Your task to perform on an android device: delete a single message in the gmail app Image 0: 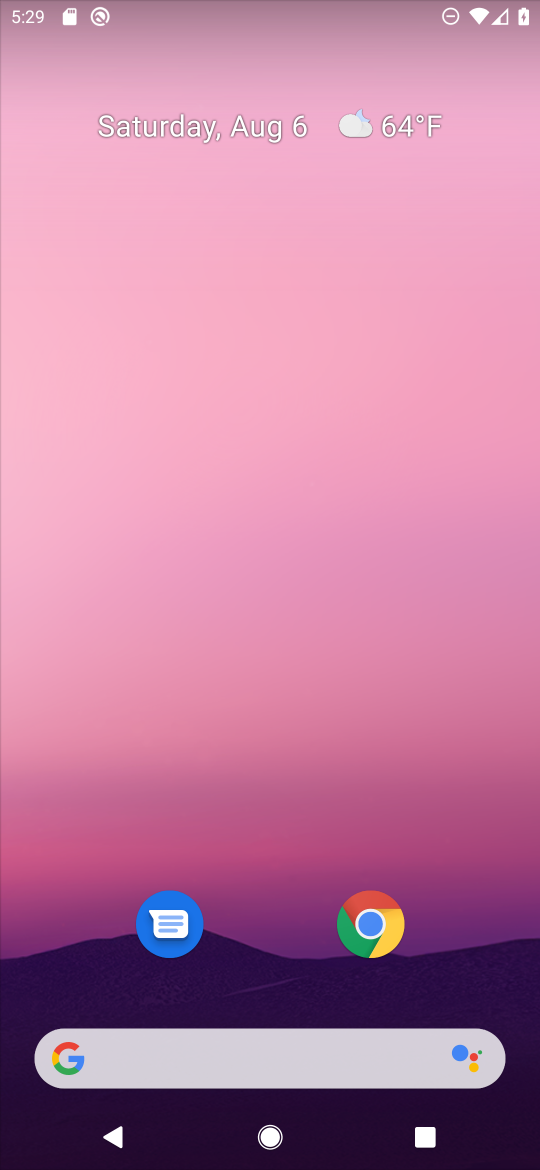
Step 0: press home button
Your task to perform on an android device: delete a single message in the gmail app Image 1: 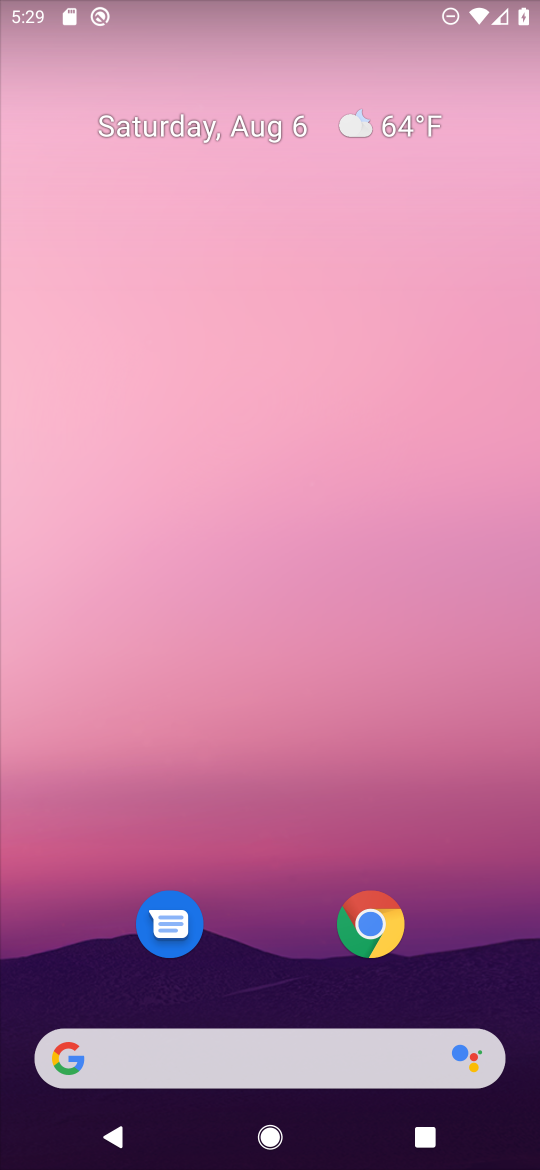
Step 1: drag from (268, 839) to (237, 154)
Your task to perform on an android device: delete a single message in the gmail app Image 2: 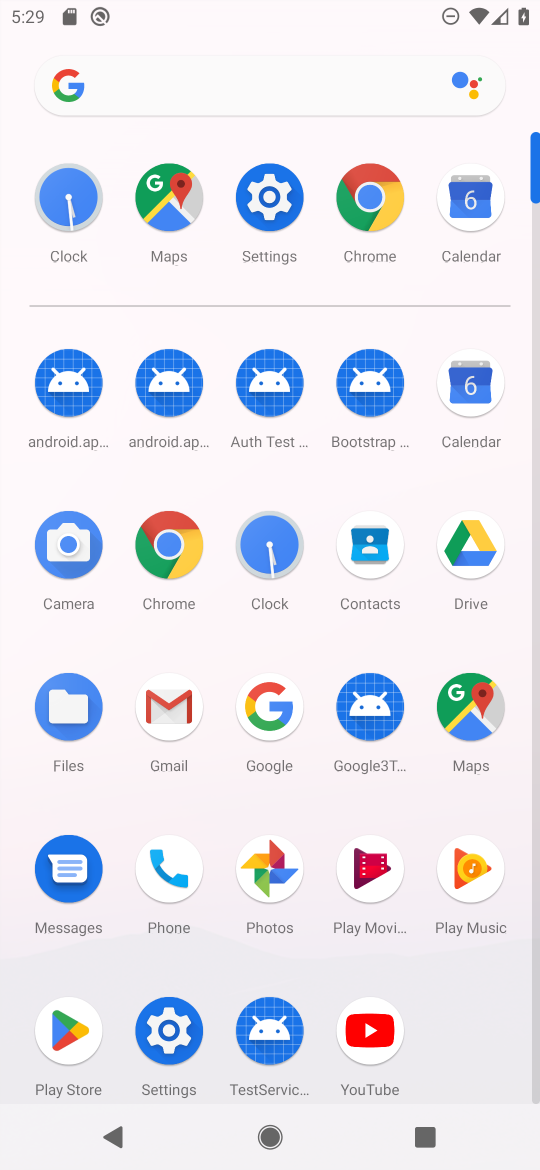
Step 2: click (160, 690)
Your task to perform on an android device: delete a single message in the gmail app Image 3: 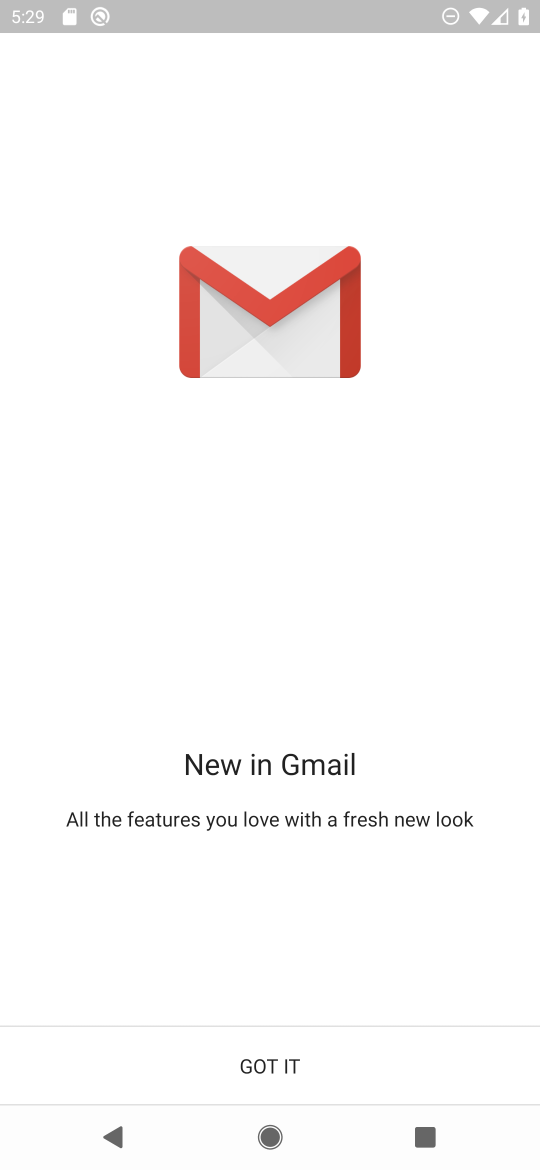
Step 3: click (280, 1065)
Your task to perform on an android device: delete a single message in the gmail app Image 4: 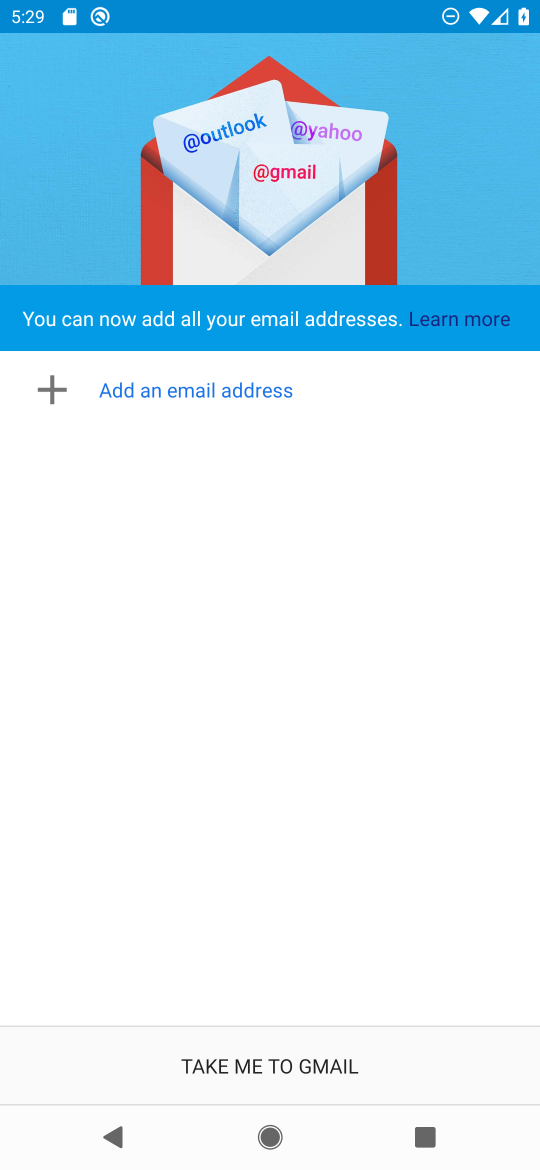
Step 4: click (280, 1057)
Your task to perform on an android device: delete a single message in the gmail app Image 5: 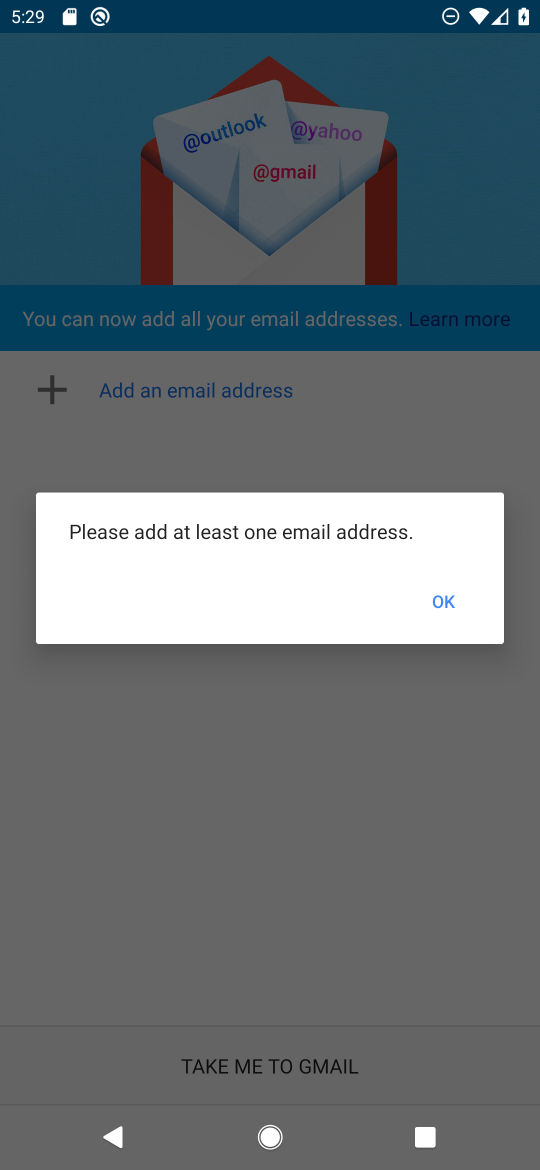
Step 5: task complete